Your task to perform on an android device: open a bookmark in the chrome app Image 0: 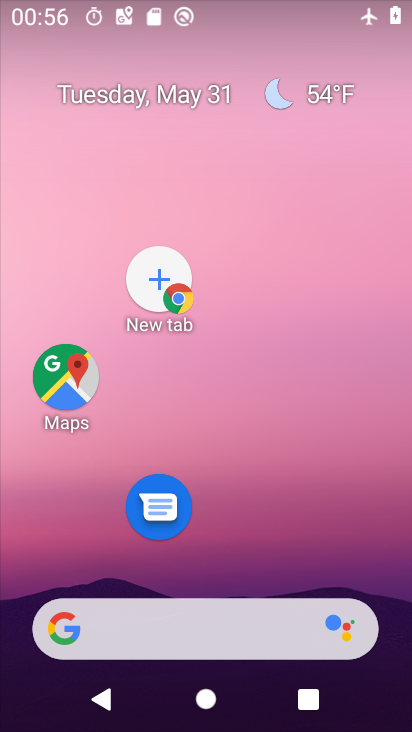
Step 0: drag from (249, 690) to (239, 409)
Your task to perform on an android device: open a bookmark in the chrome app Image 1: 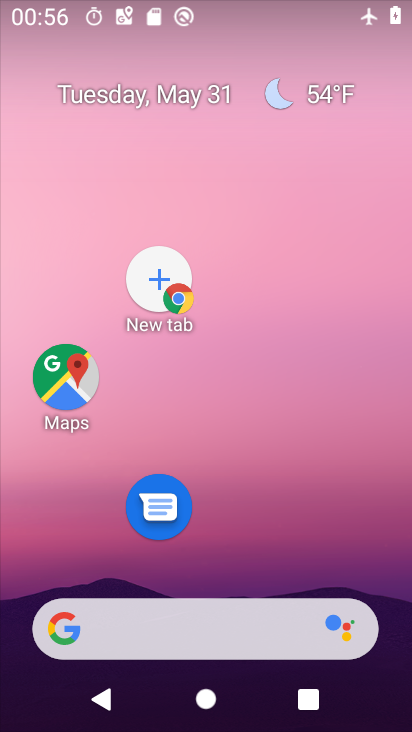
Step 1: click (220, 293)
Your task to perform on an android device: open a bookmark in the chrome app Image 2: 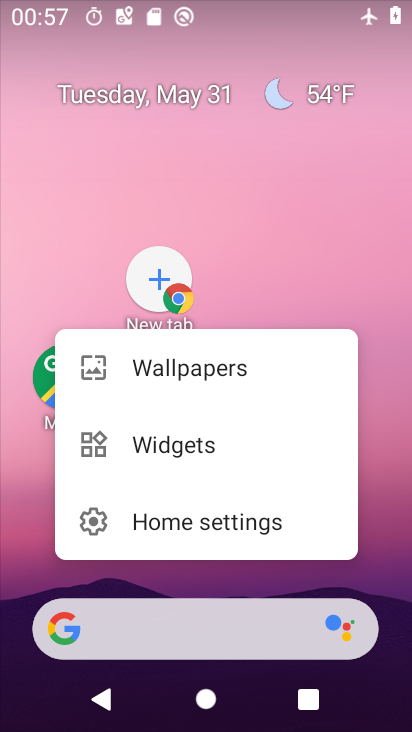
Step 2: click (222, 170)
Your task to perform on an android device: open a bookmark in the chrome app Image 3: 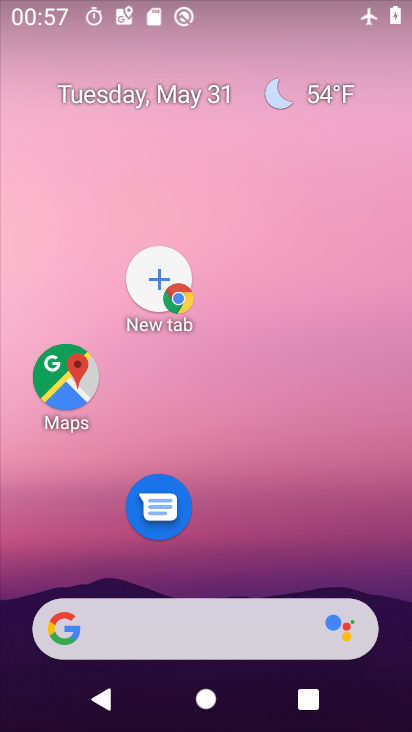
Step 3: drag from (254, 249) to (254, 100)
Your task to perform on an android device: open a bookmark in the chrome app Image 4: 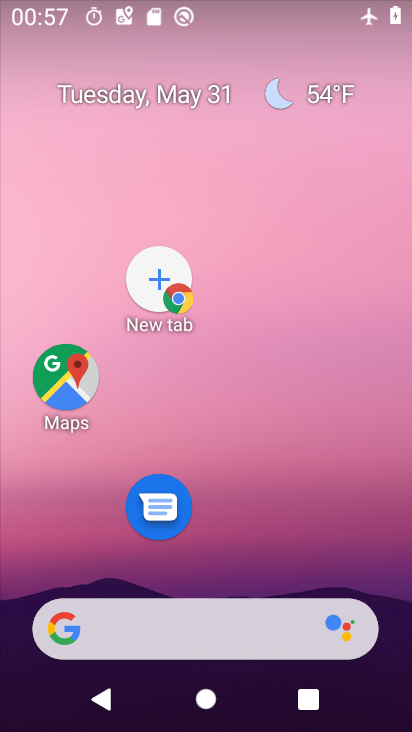
Step 4: drag from (197, 97) to (211, 41)
Your task to perform on an android device: open a bookmark in the chrome app Image 5: 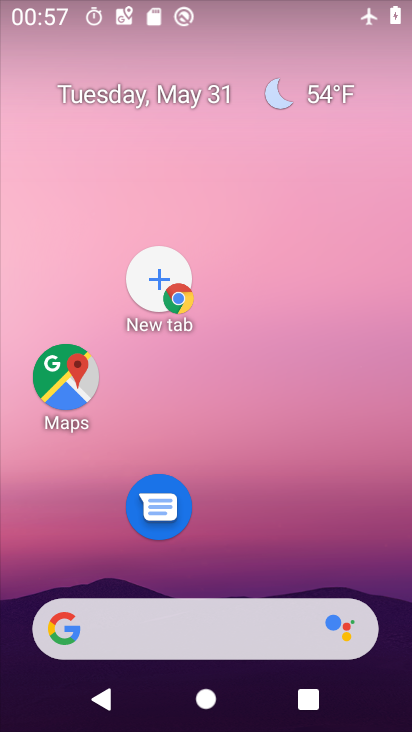
Step 5: drag from (258, 668) to (286, 69)
Your task to perform on an android device: open a bookmark in the chrome app Image 6: 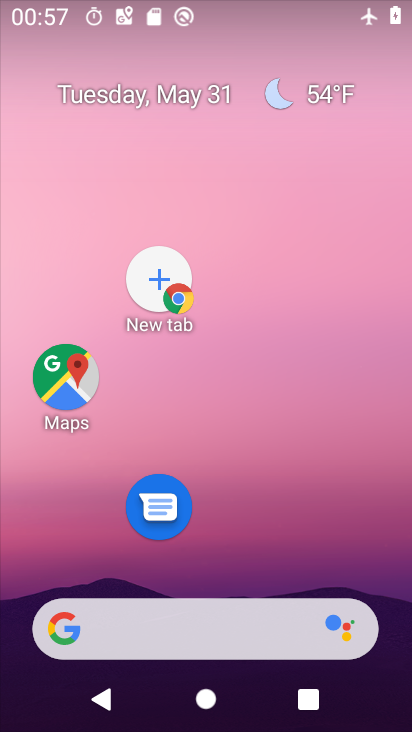
Step 6: drag from (270, 661) to (218, 69)
Your task to perform on an android device: open a bookmark in the chrome app Image 7: 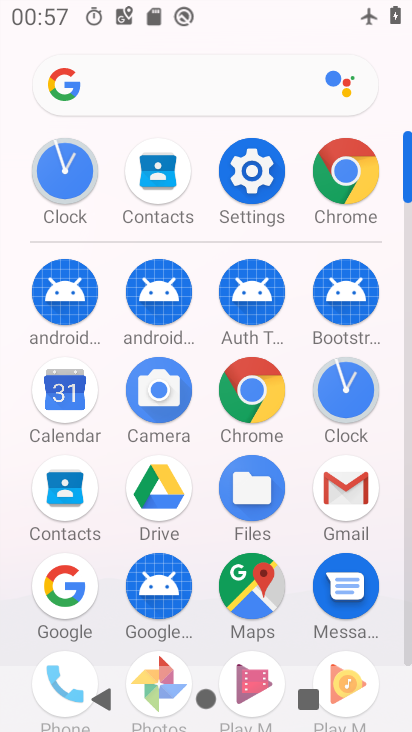
Step 7: click (342, 194)
Your task to perform on an android device: open a bookmark in the chrome app Image 8: 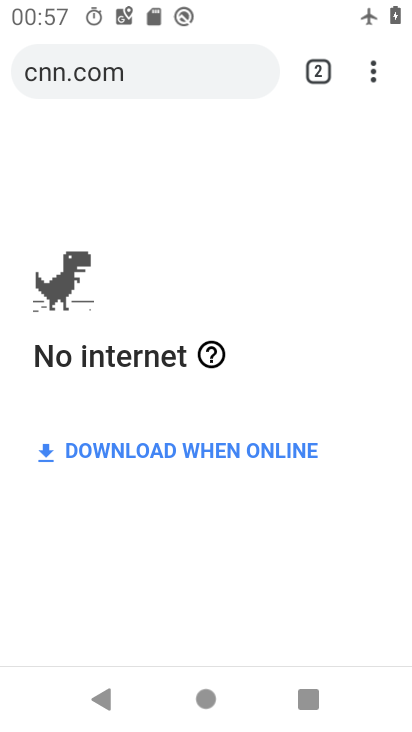
Step 8: drag from (372, 78) to (118, 146)
Your task to perform on an android device: open a bookmark in the chrome app Image 9: 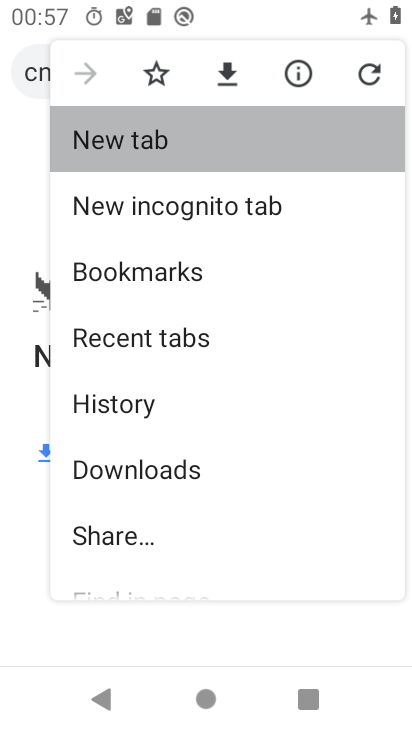
Step 9: click (120, 138)
Your task to perform on an android device: open a bookmark in the chrome app Image 10: 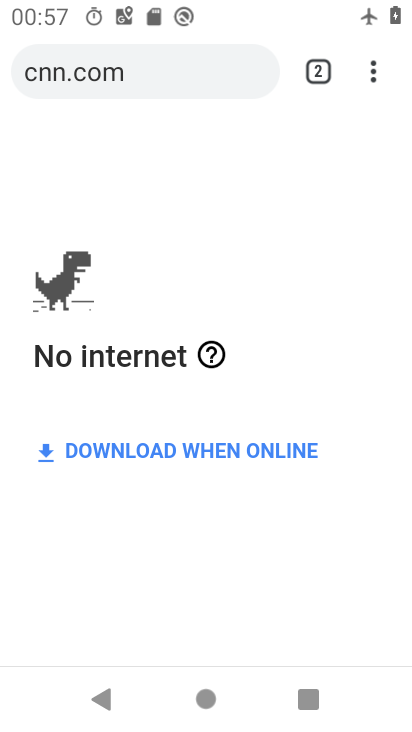
Step 10: click (120, 127)
Your task to perform on an android device: open a bookmark in the chrome app Image 11: 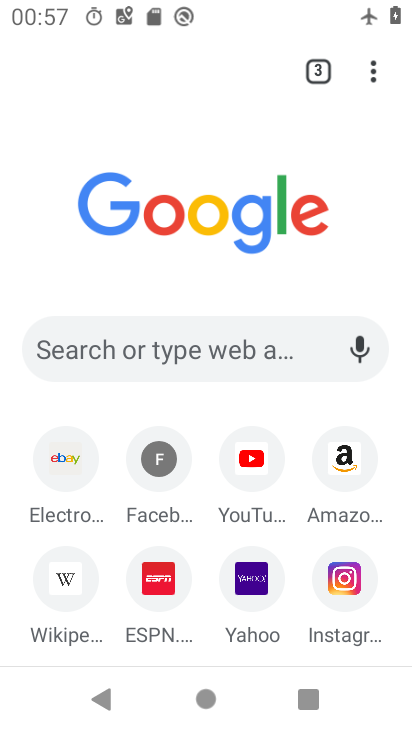
Step 11: task complete